Your task to perform on an android device: set the timer Image 0: 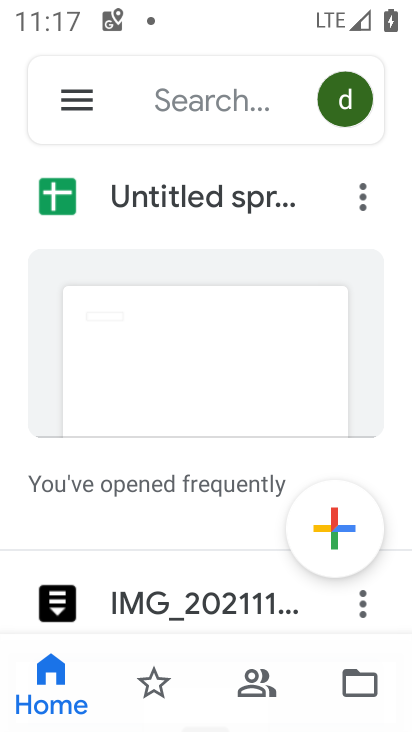
Step 0: press home button
Your task to perform on an android device: set the timer Image 1: 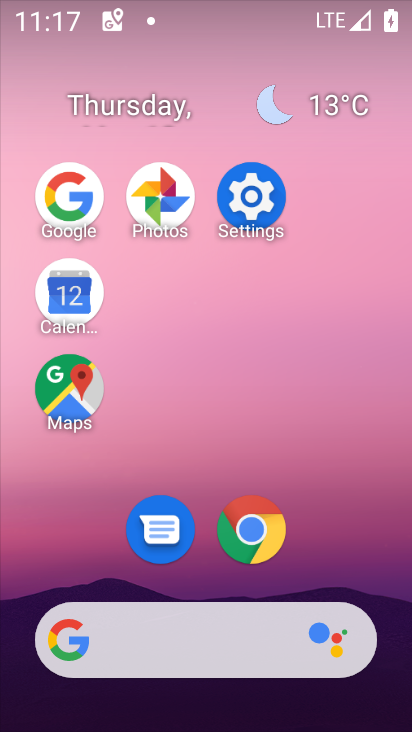
Step 1: drag from (337, 585) to (330, 249)
Your task to perform on an android device: set the timer Image 2: 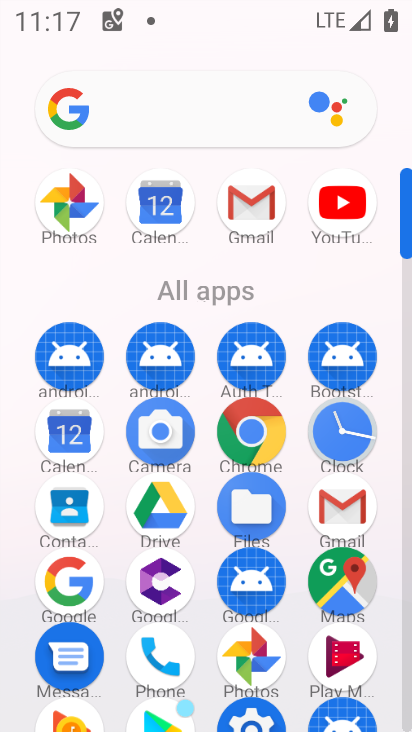
Step 2: drag from (338, 422) to (170, 293)
Your task to perform on an android device: set the timer Image 3: 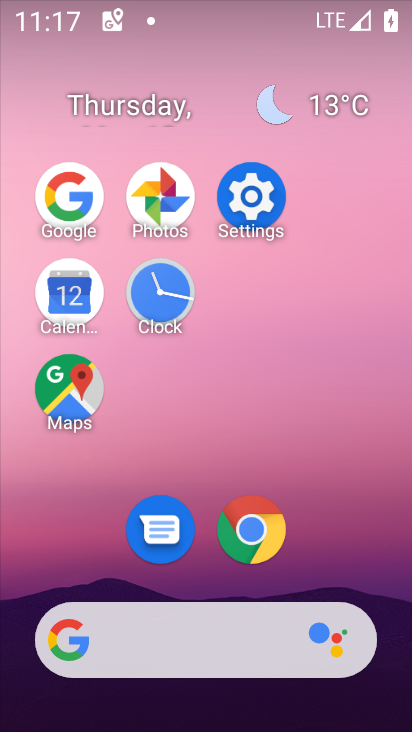
Step 3: click (168, 292)
Your task to perform on an android device: set the timer Image 4: 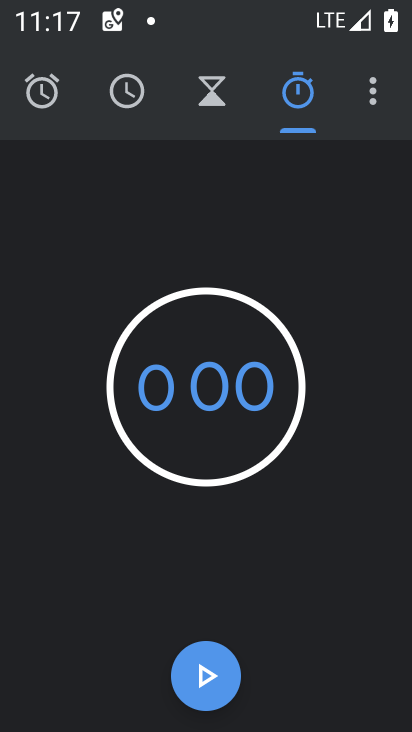
Step 4: click (189, 96)
Your task to perform on an android device: set the timer Image 5: 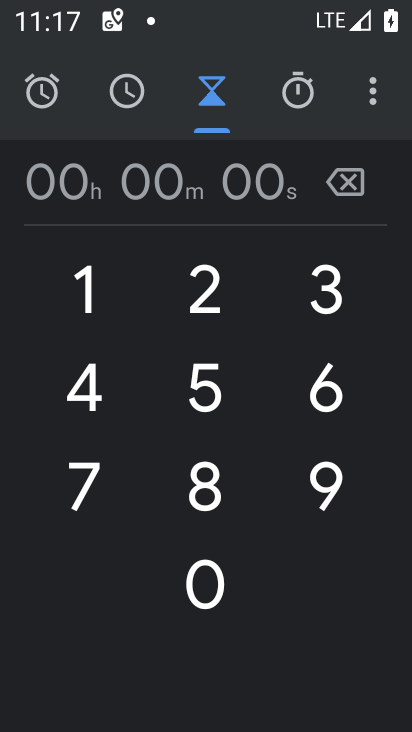
Step 5: click (224, 278)
Your task to perform on an android device: set the timer Image 6: 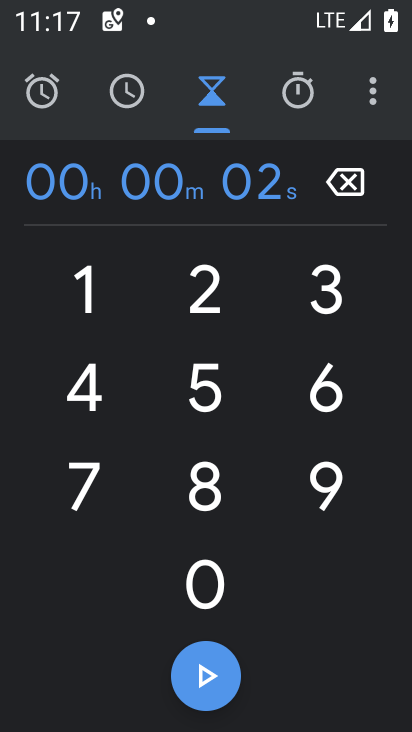
Step 6: click (231, 680)
Your task to perform on an android device: set the timer Image 7: 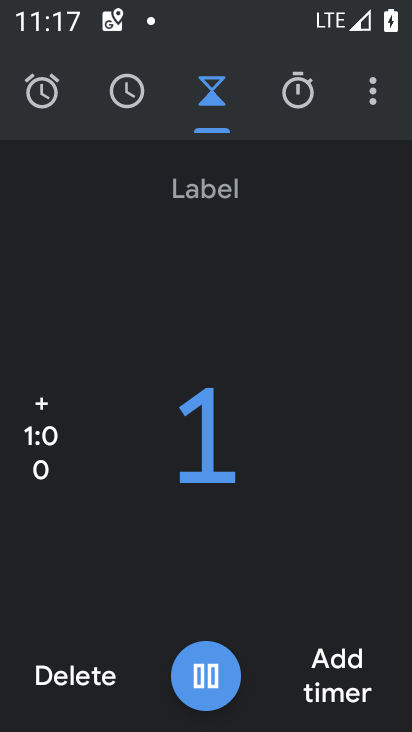
Step 7: task complete